Your task to perform on an android device: see tabs open on other devices in the chrome app Image 0: 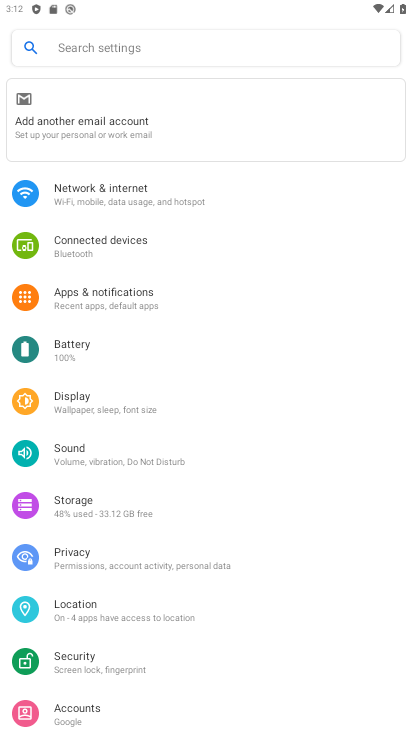
Step 0: press home button
Your task to perform on an android device: see tabs open on other devices in the chrome app Image 1: 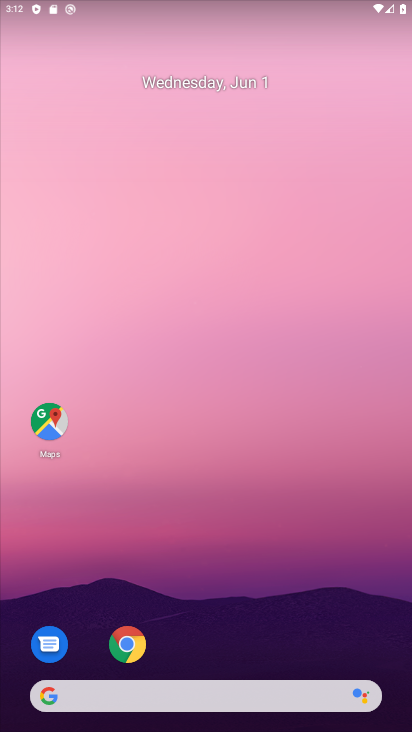
Step 1: click (121, 650)
Your task to perform on an android device: see tabs open on other devices in the chrome app Image 2: 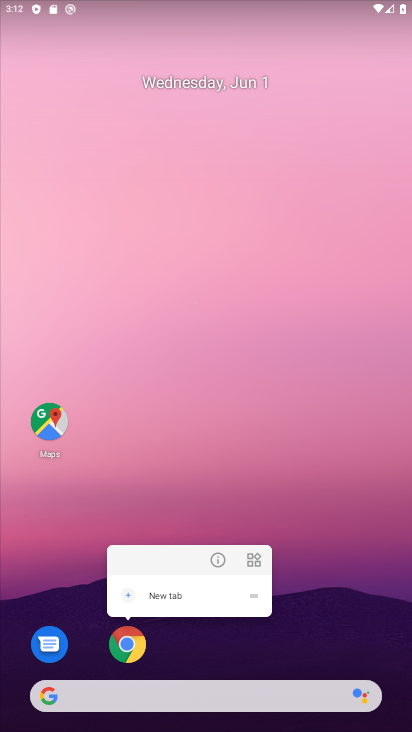
Step 2: click (143, 656)
Your task to perform on an android device: see tabs open on other devices in the chrome app Image 3: 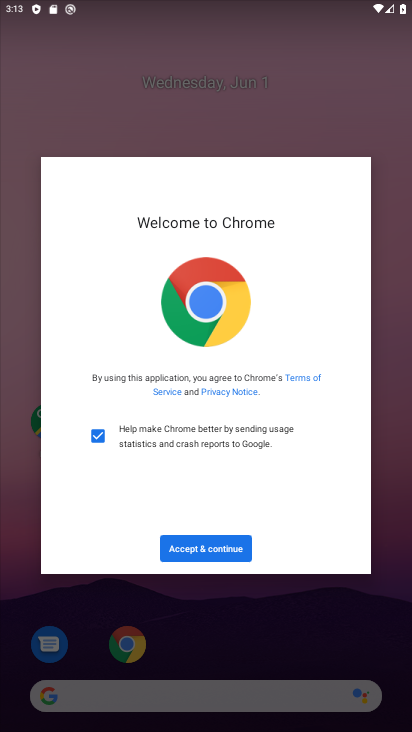
Step 3: click (226, 543)
Your task to perform on an android device: see tabs open on other devices in the chrome app Image 4: 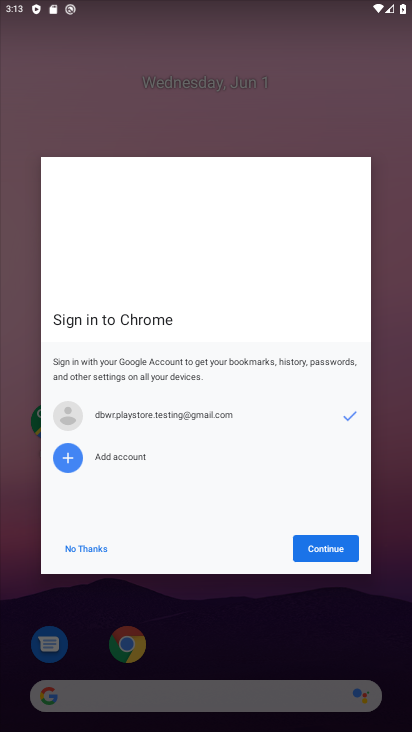
Step 4: click (317, 552)
Your task to perform on an android device: see tabs open on other devices in the chrome app Image 5: 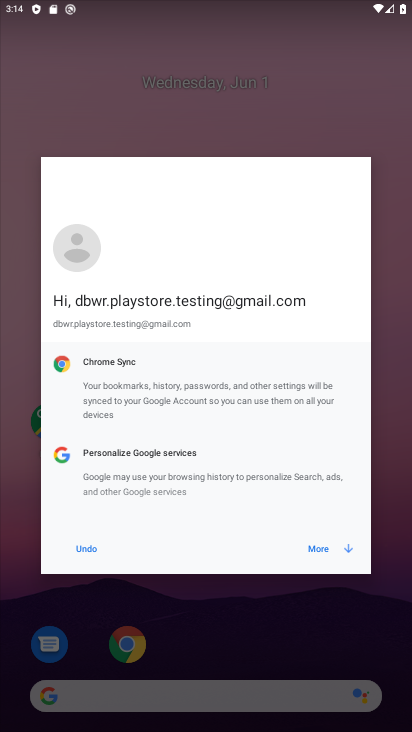
Step 5: click (317, 552)
Your task to perform on an android device: see tabs open on other devices in the chrome app Image 6: 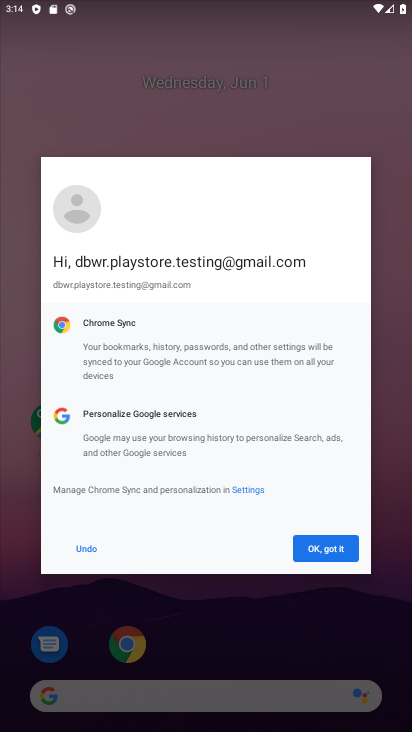
Step 6: click (317, 552)
Your task to perform on an android device: see tabs open on other devices in the chrome app Image 7: 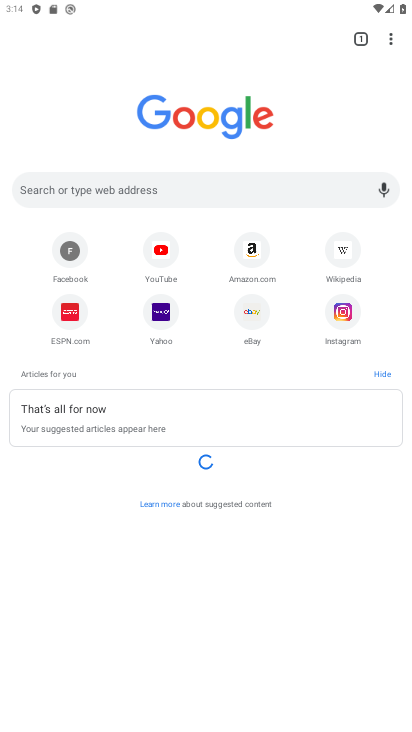
Step 7: click (392, 41)
Your task to perform on an android device: see tabs open on other devices in the chrome app Image 8: 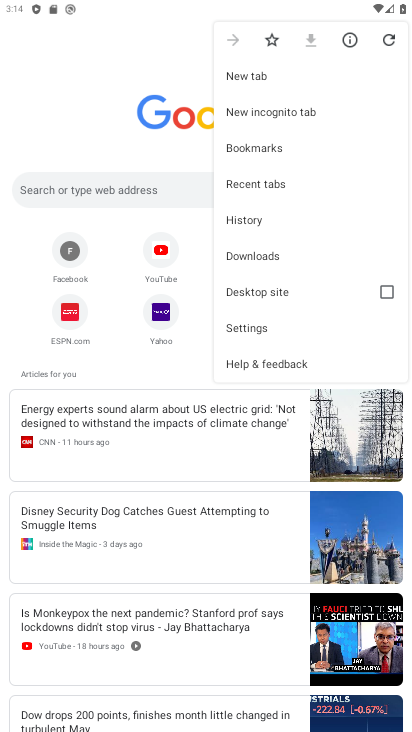
Step 8: click (299, 173)
Your task to perform on an android device: see tabs open on other devices in the chrome app Image 9: 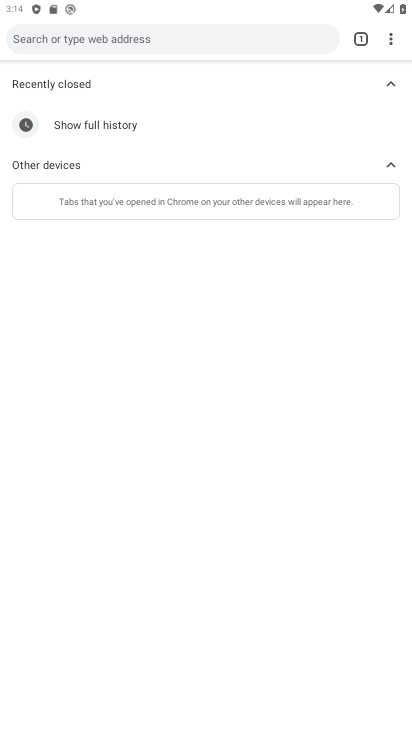
Step 9: task complete